Your task to perform on an android device: refresh tabs in the chrome app Image 0: 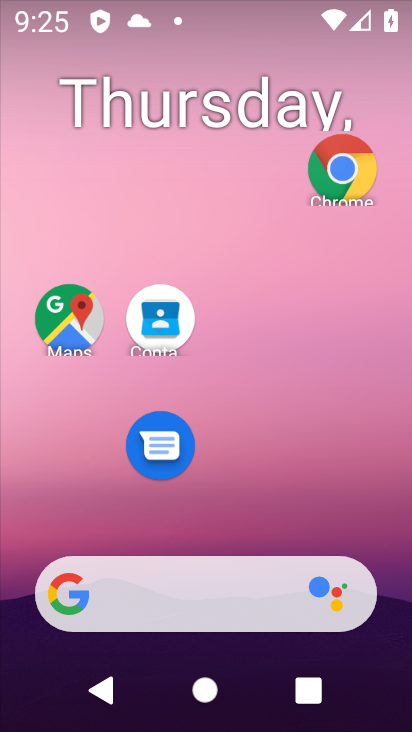
Step 0: drag from (264, 641) to (250, 141)
Your task to perform on an android device: refresh tabs in the chrome app Image 1: 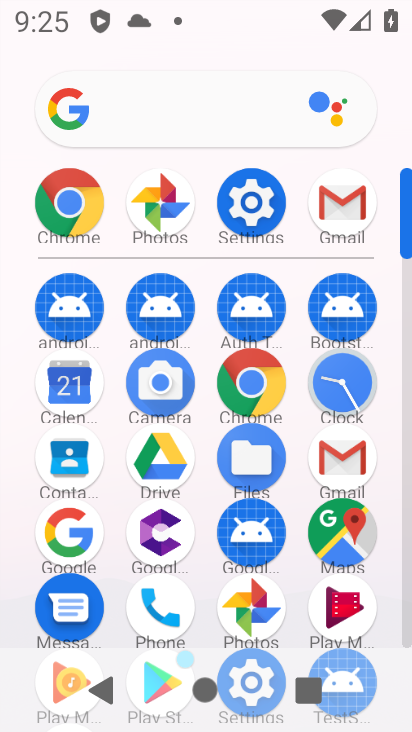
Step 1: click (77, 199)
Your task to perform on an android device: refresh tabs in the chrome app Image 2: 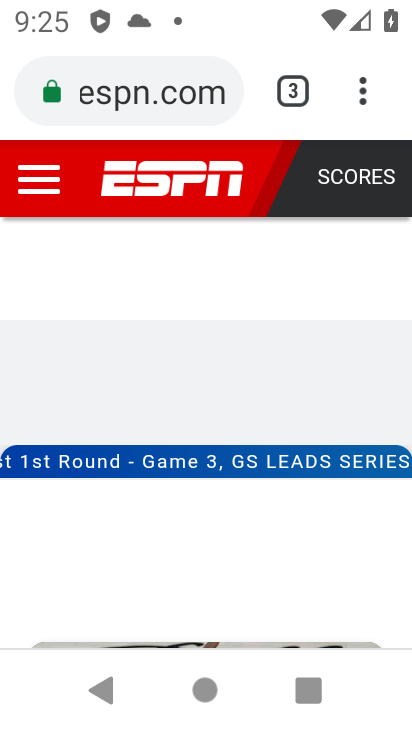
Step 2: click (361, 94)
Your task to perform on an android device: refresh tabs in the chrome app Image 3: 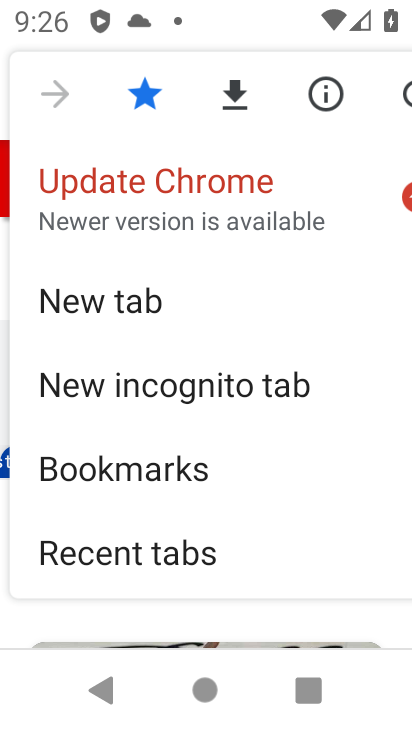
Step 3: click (404, 97)
Your task to perform on an android device: refresh tabs in the chrome app Image 4: 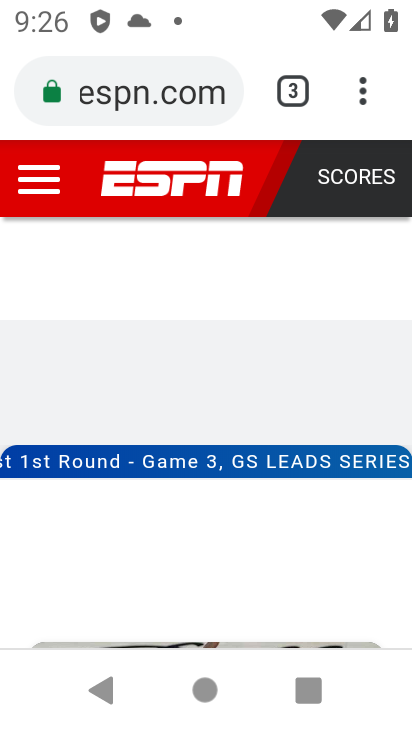
Step 4: task complete